Your task to perform on an android device: Check the news Image 0: 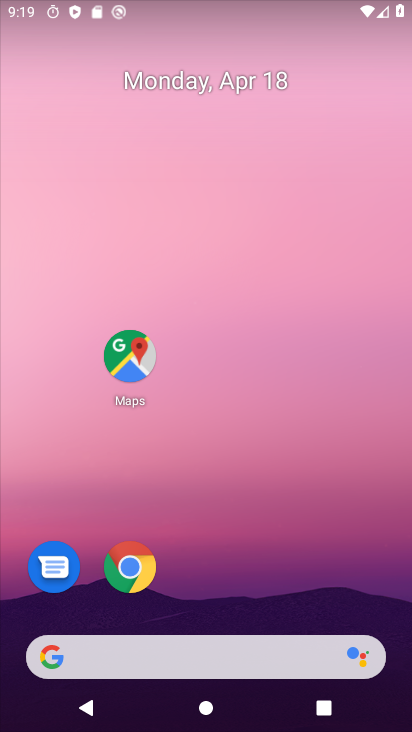
Step 0: drag from (229, 696) to (353, 190)
Your task to perform on an android device: Check the news Image 1: 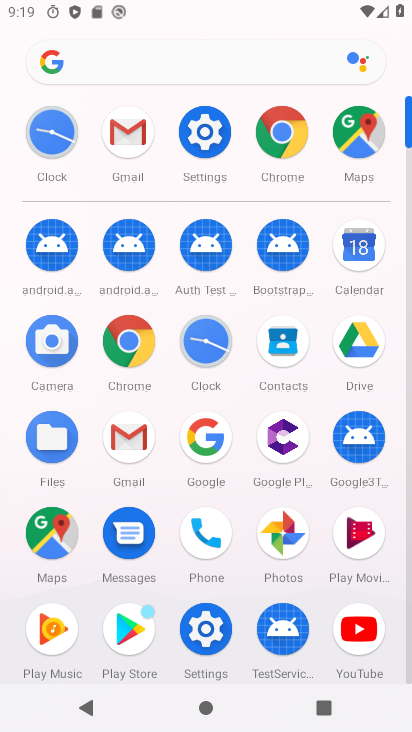
Step 1: click (86, 68)
Your task to perform on an android device: Check the news Image 2: 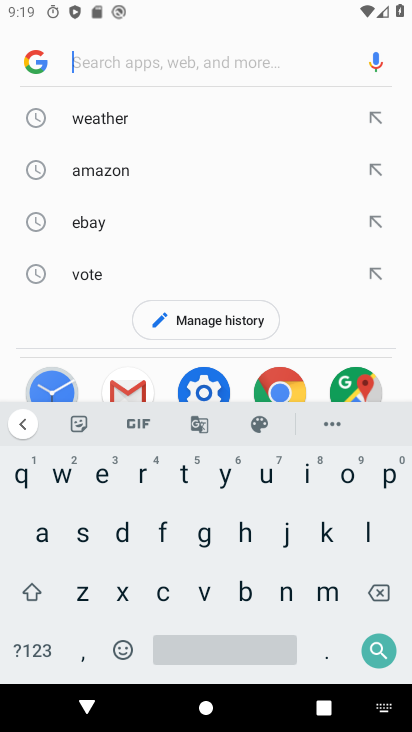
Step 2: click (43, 61)
Your task to perform on an android device: Check the news Image 3: 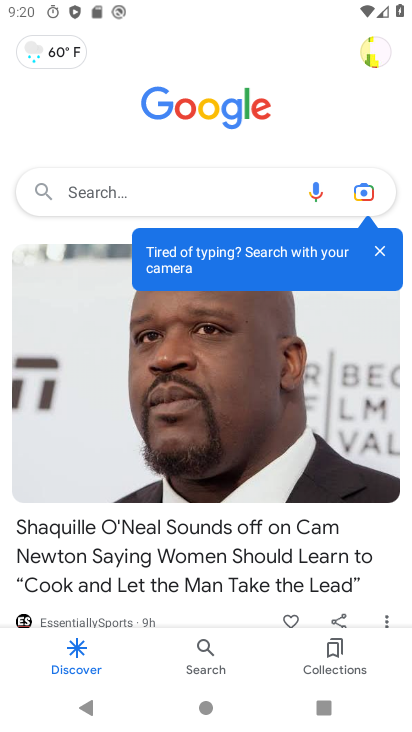
Step 3: task complete